Your task to perform on an android device: toggle priority inbox in the gmail app Image 0: 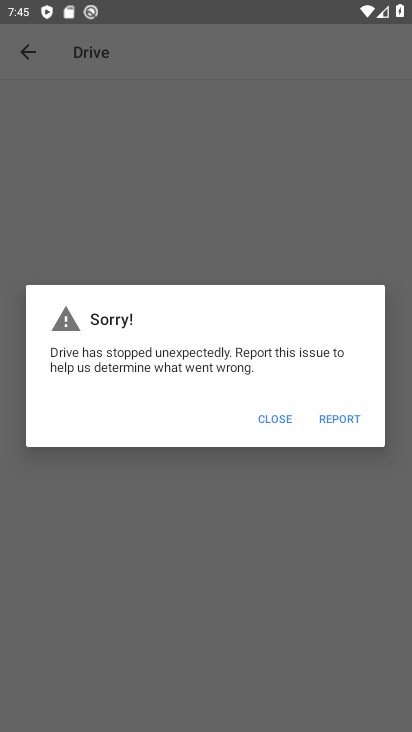
Step 0: press home button
Your task to perform on an android device: toggle priority inbox in the gmail app Image 1: 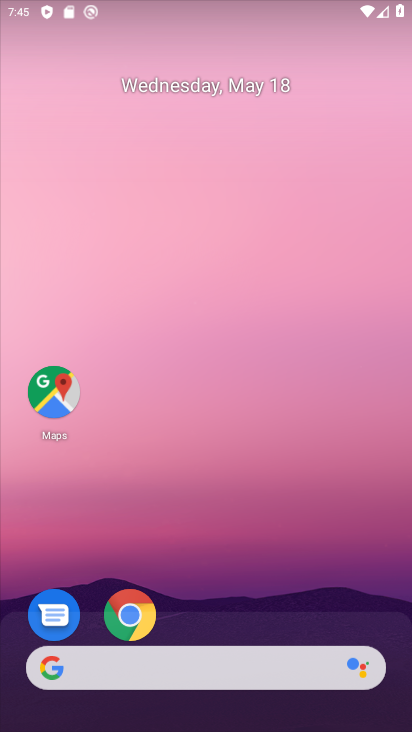
Step 1: drag from (167, 573) to (217, 183)
Your task to perform on an android device: toggle priority inbox in the gmail app Image 2: 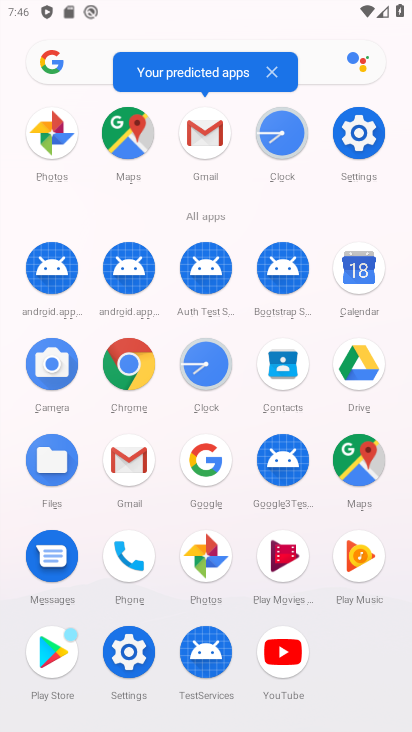
Step 2: click (149, 464)
Your task to perform on an android device: toggle priority inbox in the gmail app Image 3: 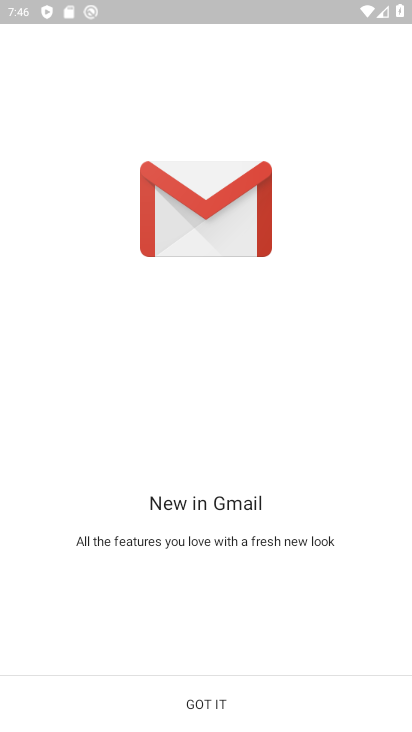
Step 3: click (212, 703)
Your task to perform on an android device: toggle priority inbox in the gmail app Image 4: 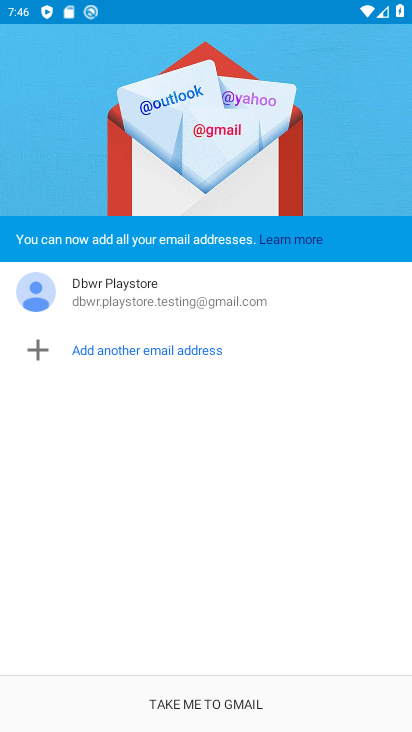
Step 4: click (211, 703)
Your task to perform on an android device: toggle priority inbox in the gmail app Image 5: 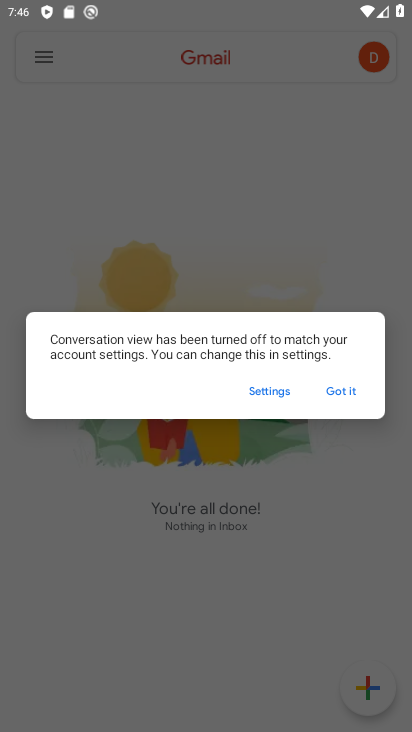
Step 5: click (348, 392)
Your task to perform on an android device: toggle priority inbox in the gmail app Image 6: 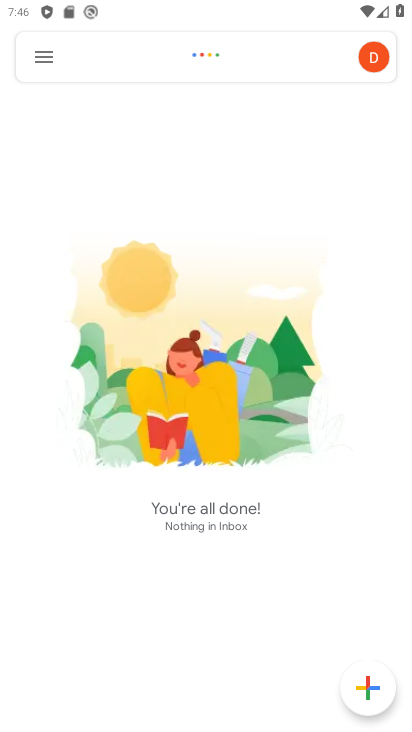
Step 6: click (46, 66)
Your task to perform on an android device: toggle priority inbox in the gmail app Image 7: 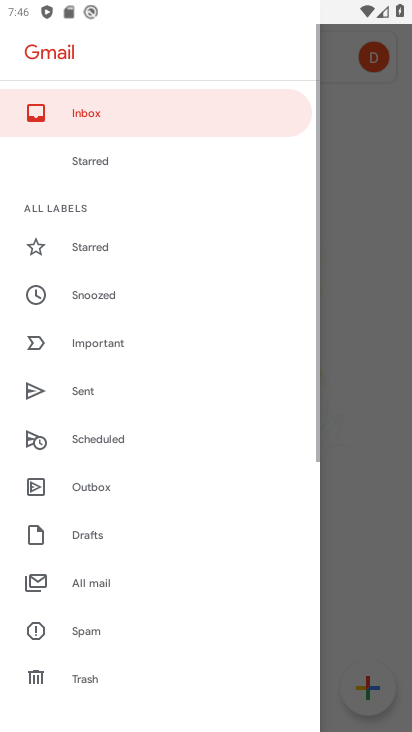
Step 7: drag from (98, 479) to (142, 116)
Your task to perform on an android device: toggle priority inbox in the gmail app Image 8: 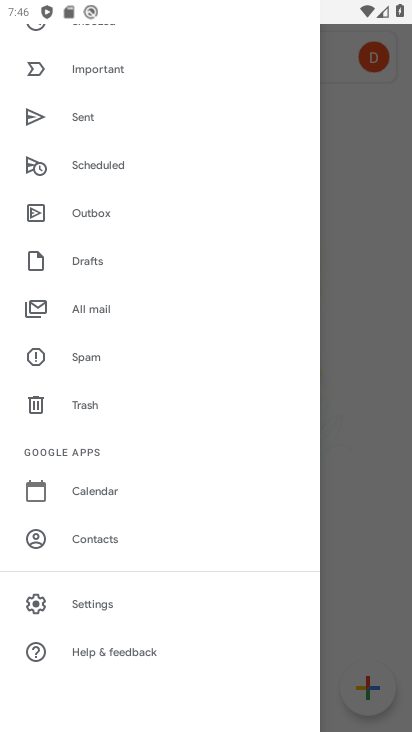
Step 8: click (146, 595)
Your task to perform on an android device: toggle priority inbox in the gmail app Image 9: 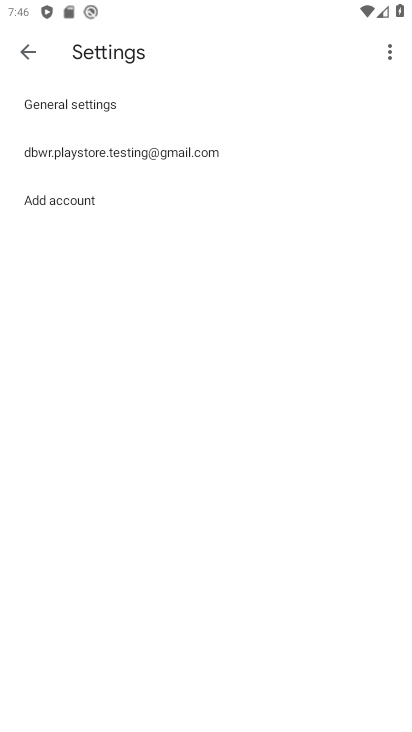
Step 9: click (158, 154)
Your task to perform on an android device: toggle priority inbox in the gmail app Image 10: 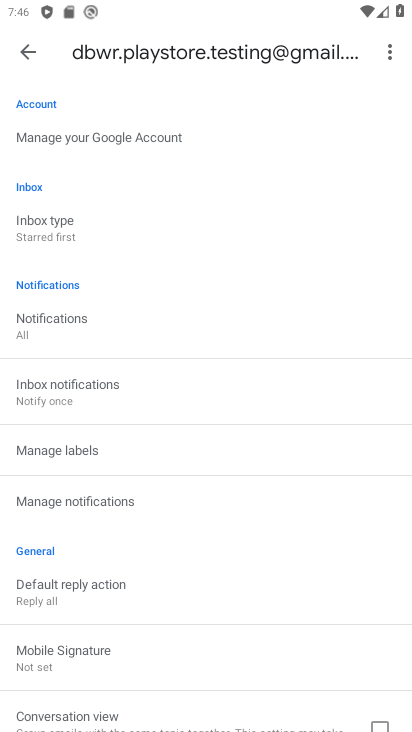
Step 10: click (148, 230)
Your task to perform on an android device: toggle priority inbox in the gmail app Image 11: 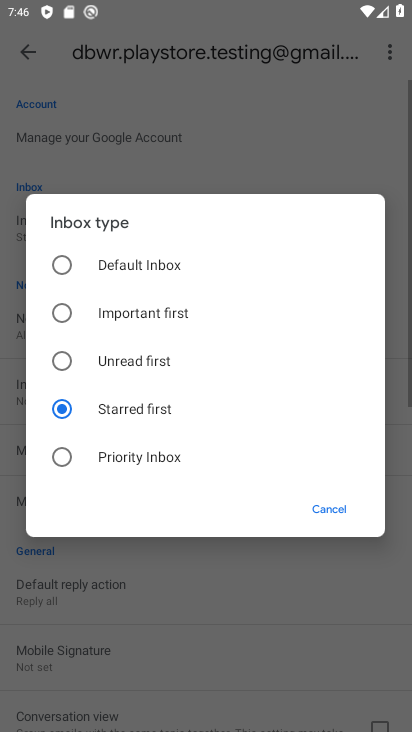
Step 11: click (114, 464)
Your task to perform on an android device: toggle priority inbox in the gmail app Image 12: 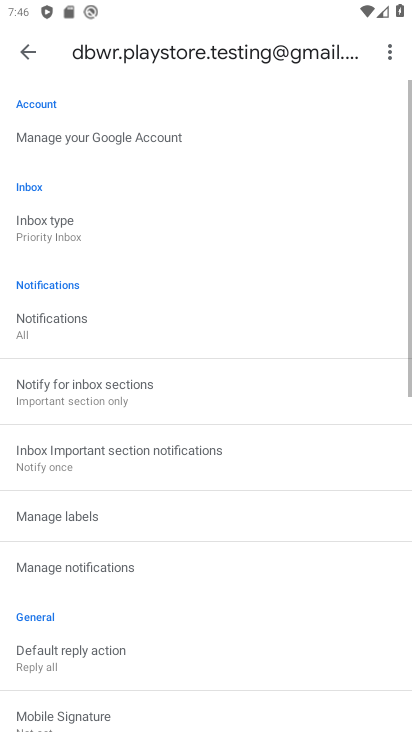
Step 12: task complete